Your task to perform on an android device: uninstall "Google Find My Device" Image 0: 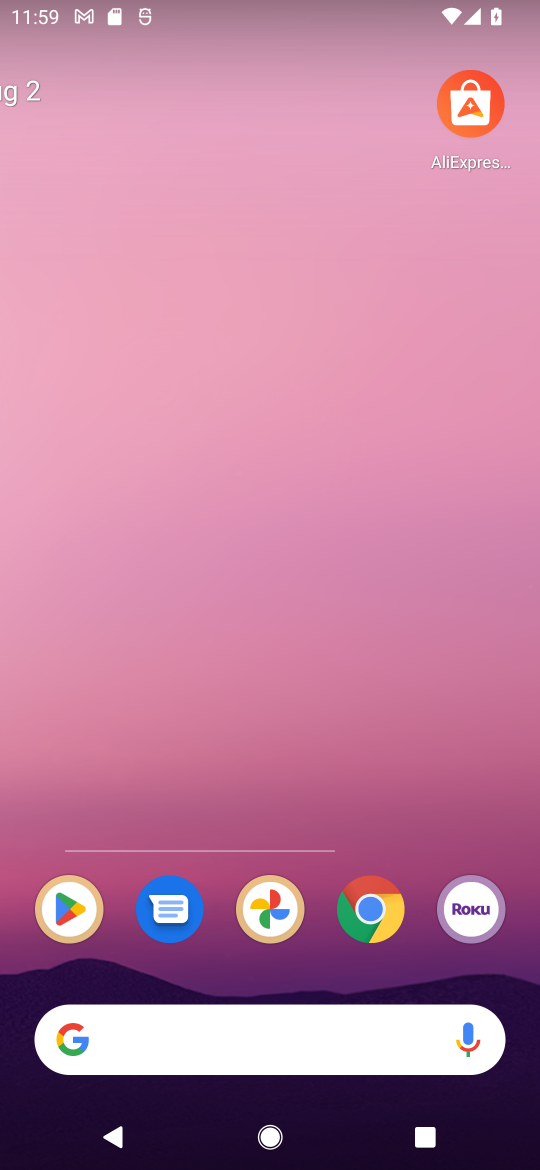
Step 0: press home button
Your task to perform on an android device: uninstall "Google Find My Device" Image 1: 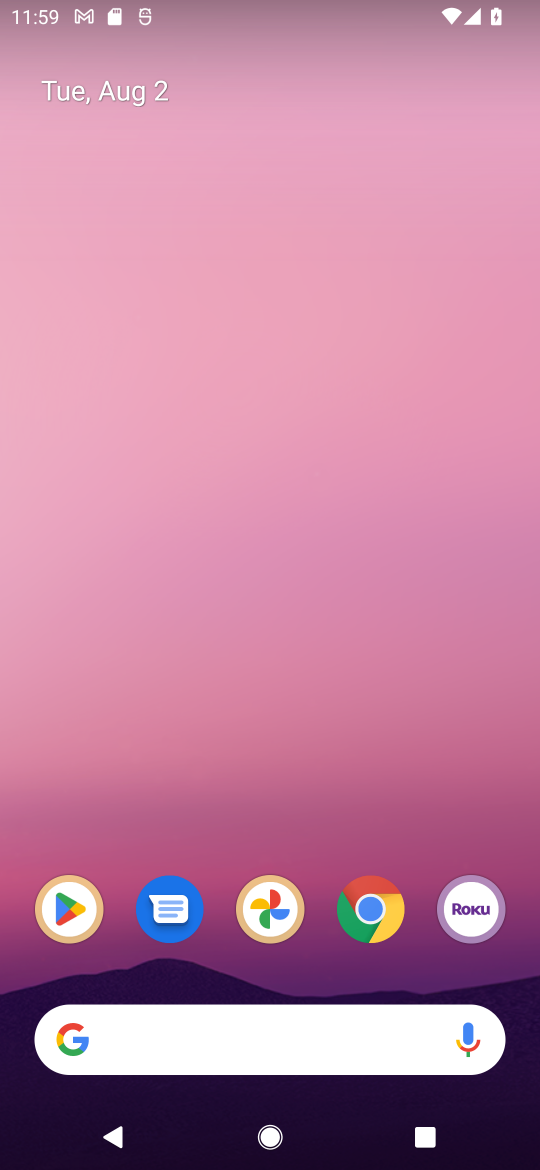
Step 1: click (75, 907)
Your task to perform on an android device: uninstall "Google Find My Device" Image 2: 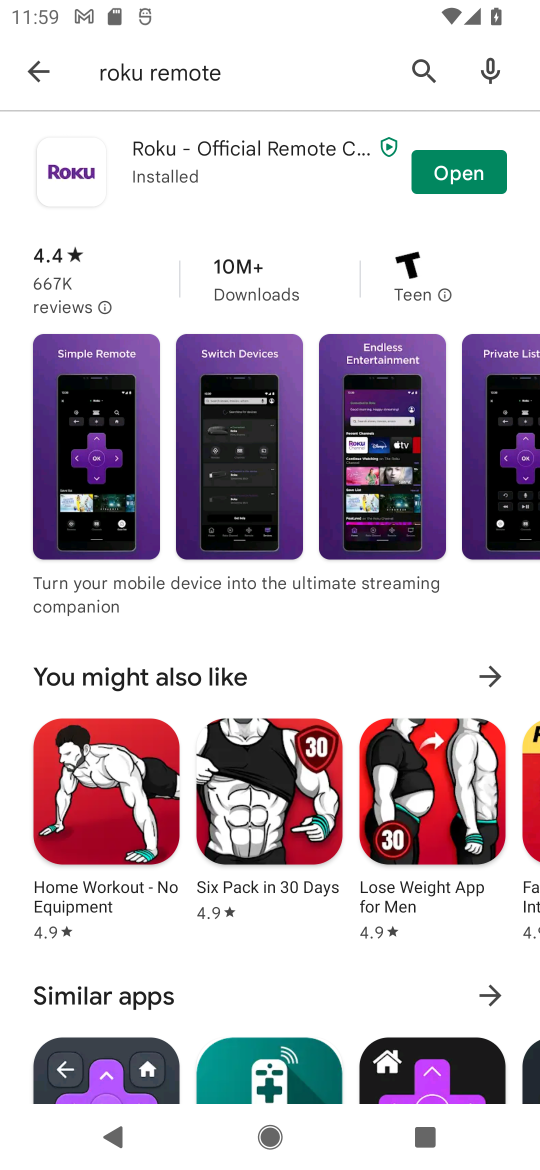
Step 2: click (432, 62)
Your task to perform on an android device: uninstall "Google Find My Device" Image 3: 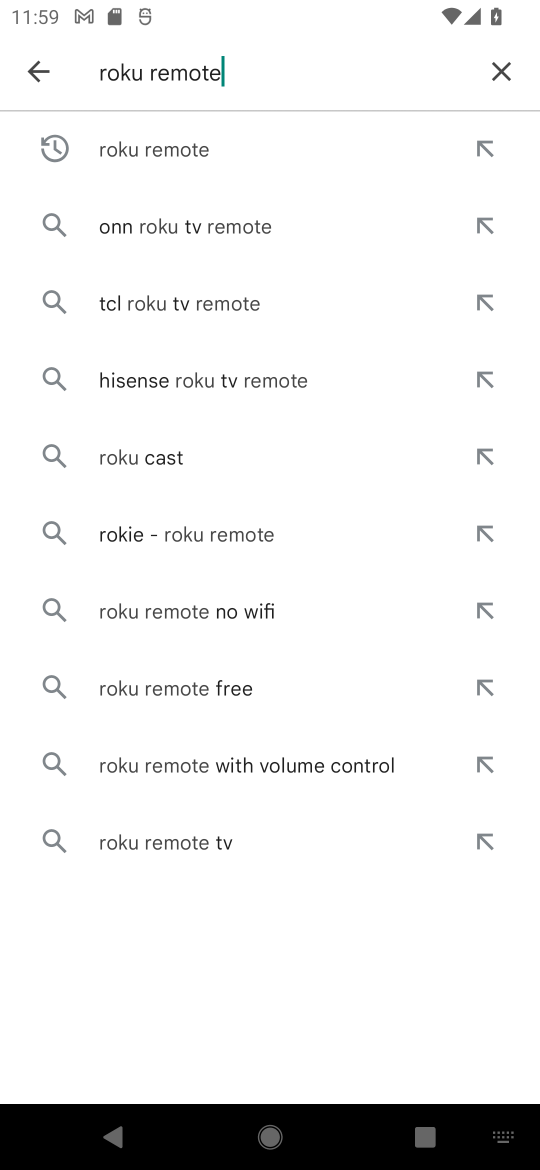
Step 3: click (496, 73)
Your task to perform on an android device: uninstall "Google Find My Device" Image 4: 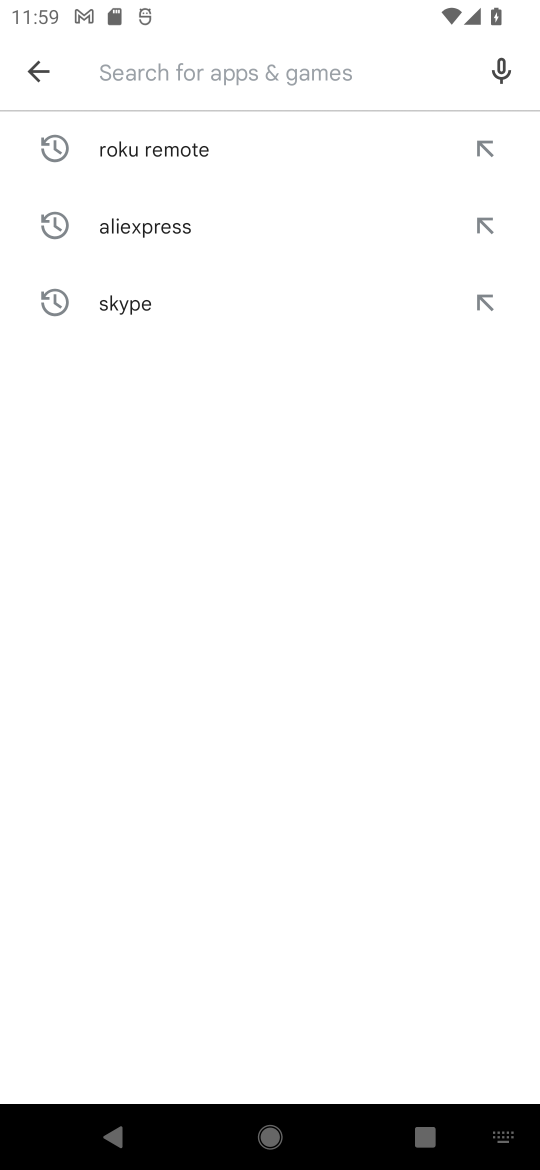
Step 4: type "Google Find My Device""
Your task to perform on an android device: uninstall "Google Find My Device" Image 5: 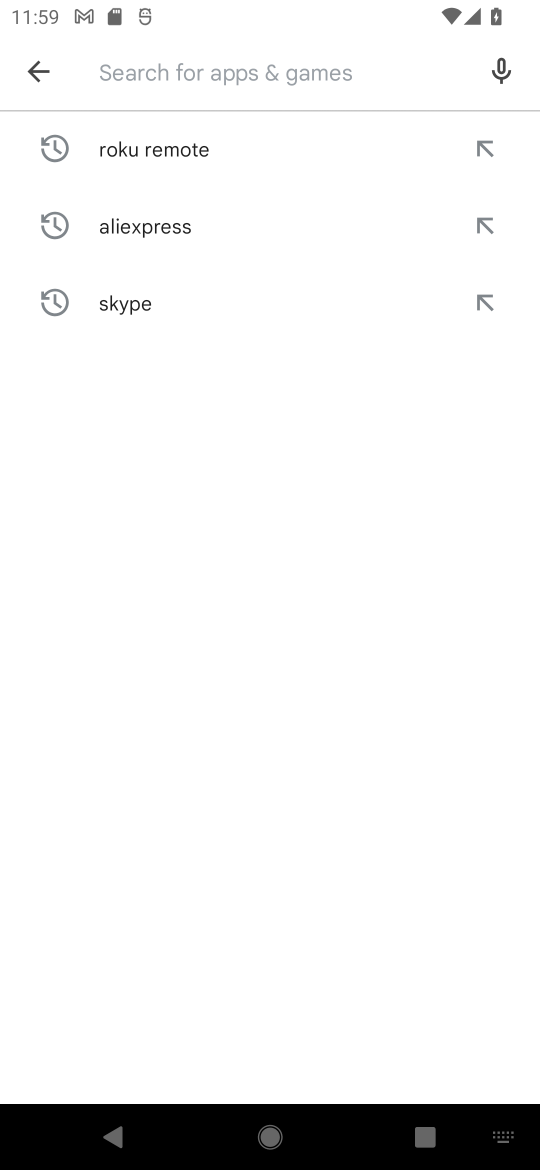
Step 5: type ""
Your task to perform on an android device: uninstall "Google Find My Device" Image 6: 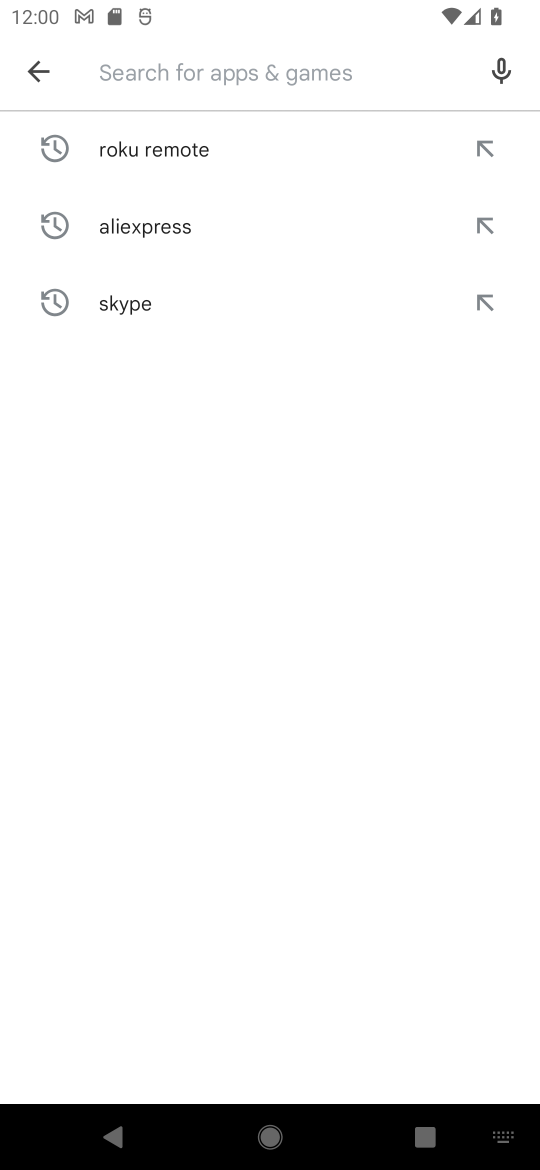
Step 6: type "google find my  device"
Your task to perform on an android device: uninstall "Google Find My Device" Image 7: 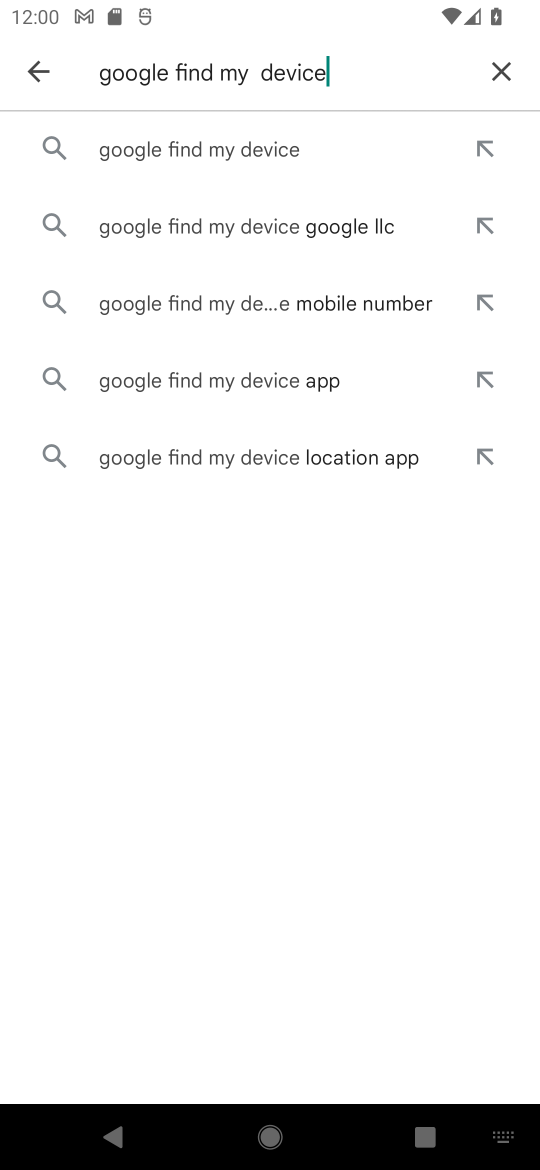
Step 7: click (220, 158)
Your task to perform on an android device: uninstall "Google Find My Device" Image 8: 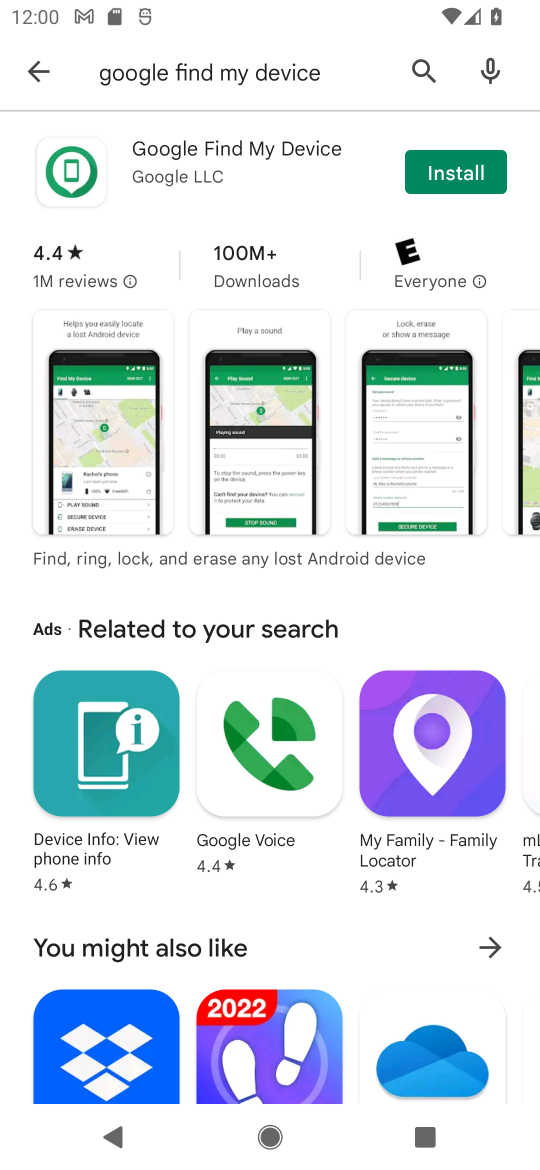
Step 8: task complete